Your task to perform on an android device: change the clock style Image 0: 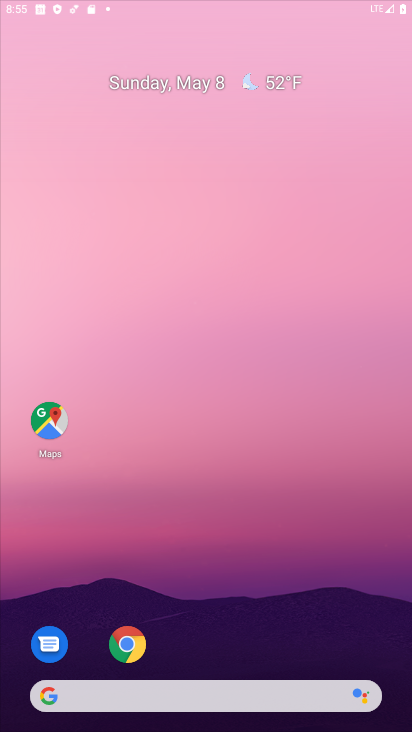
Step 0: drag from (337, 24) to (268, 58)
Your task to perform on an android device: change the clock style Image 1: 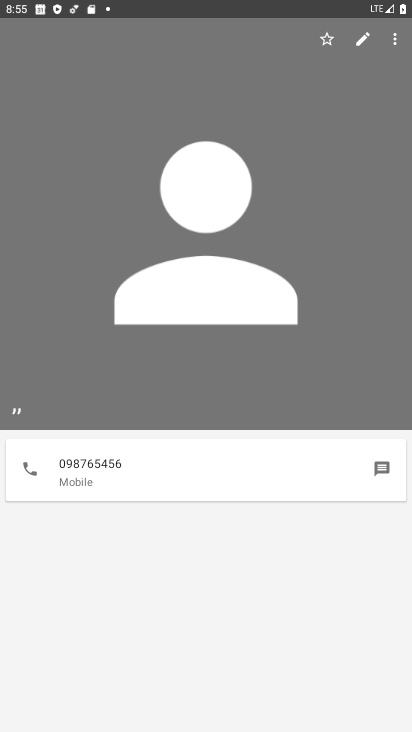
Step 1: press home button
Your task to perform on an android device: change the clock style Image 2: 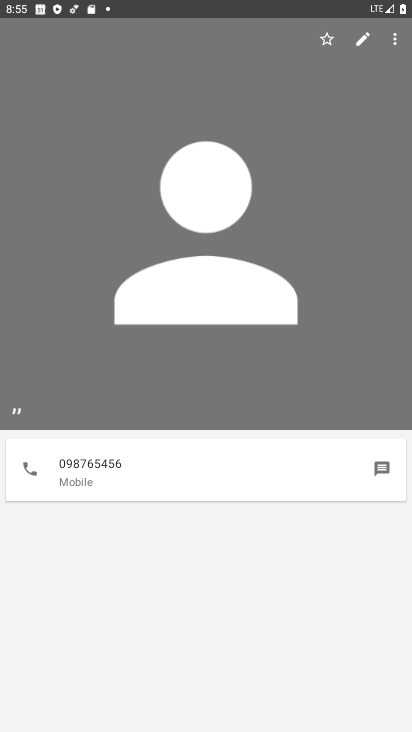
Step 2: press home button
Your task to perform on an android device: change the clock style Image 3: 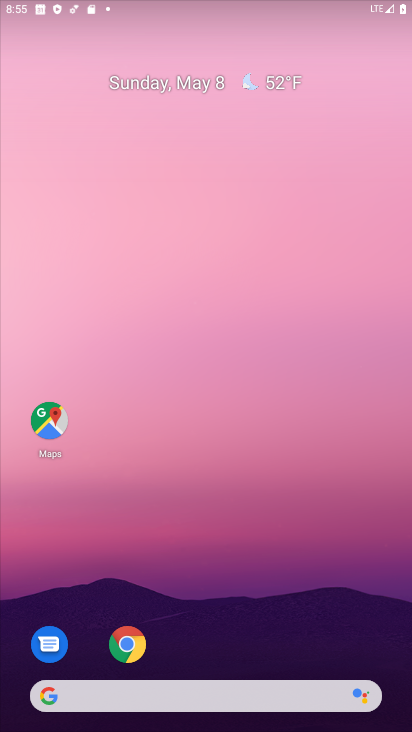
Step 3: drag from (182, 661) to (224, 349)
Your task to perform on an android device: change the clock style Image 4: 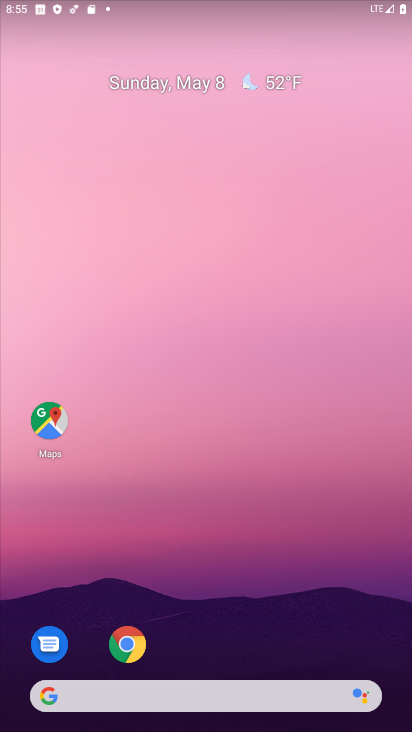
Step 4: drag from (215, 662) to (319, 148)
Your task to perform on an android device: change the clock style Image 5: 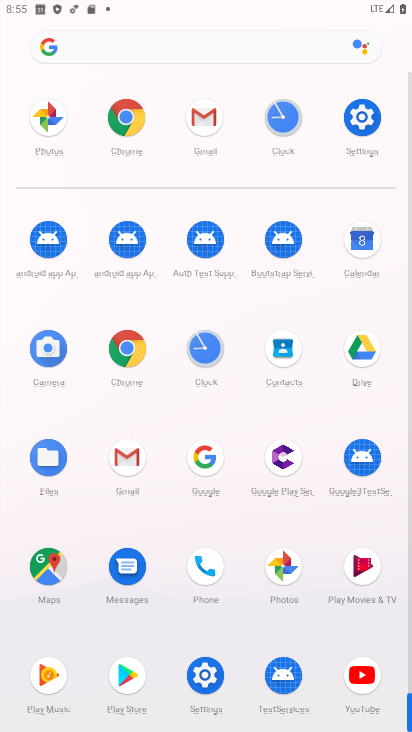
Step 5: click (202, 343)
Your task to perform on an android device: change the clock style Image 6: 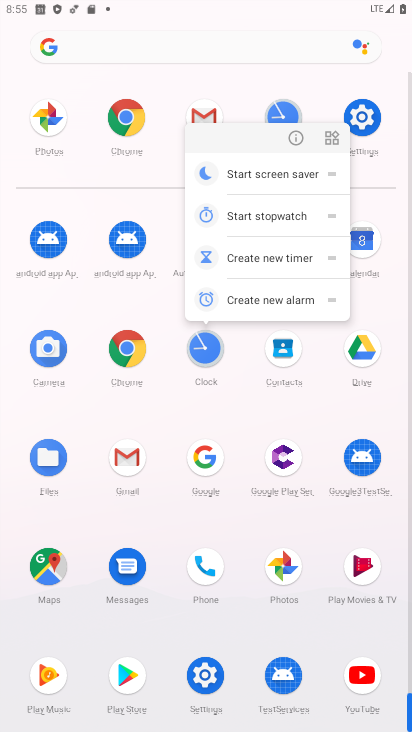
Step 6: click (292, 139)
Your task to perform on an android device: change the clock style Image 7: 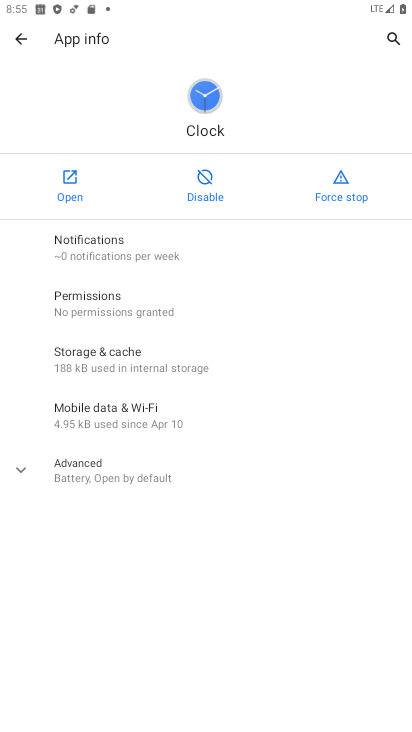
Step 7: click (84, 174)
Your task to perform on an android device: change the clock style Image 8: 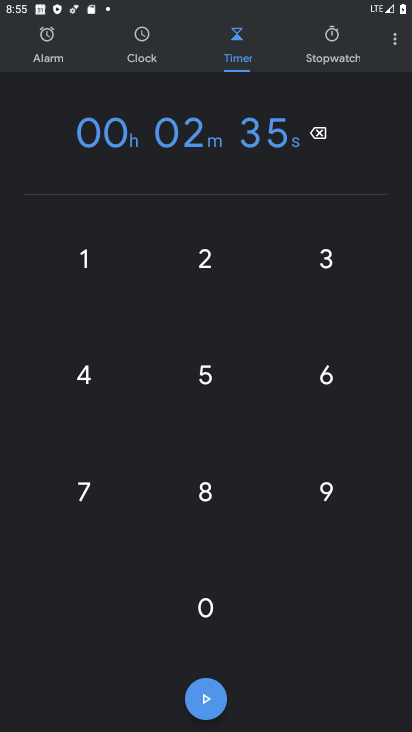
Step 8: click (128, 29)
Your task to perform on an android device: change the clock style Image 9: 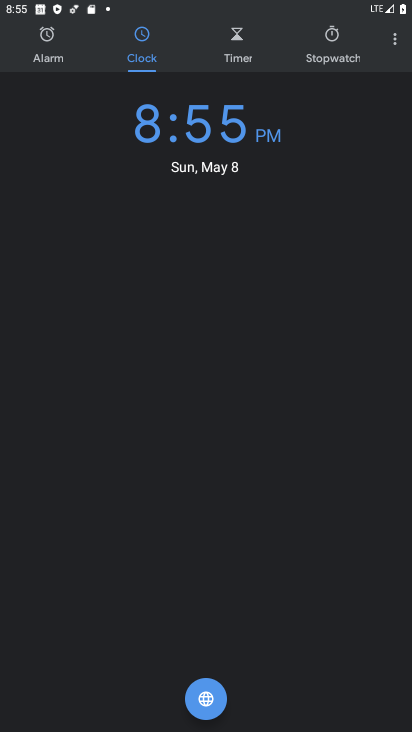
Step 9: click (401, 44)
Your task to perform on an android device: change the clock style Image 10: 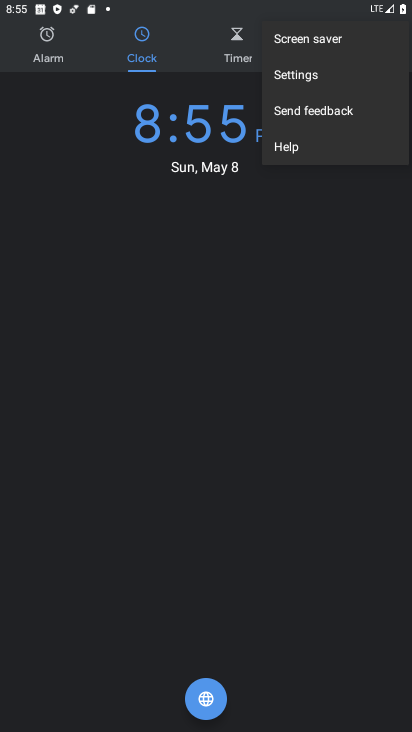
Step 10: drag from (316, 44) to (309, 82)
Your task to perform on an android device: change the clock style Image 11: 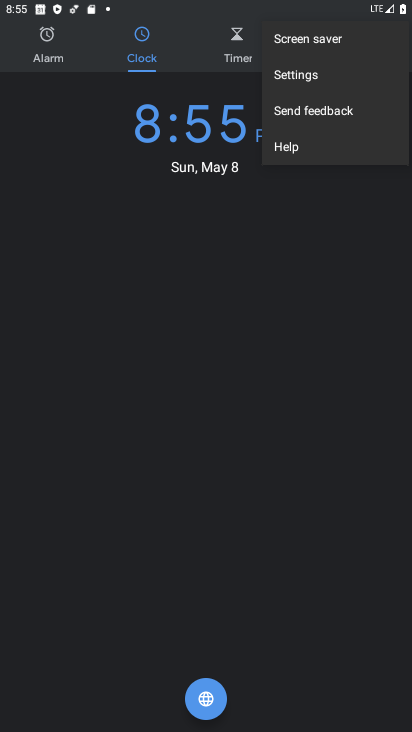
Step 11: click (337, 85)
Your task to perform on an android device: change the clock style Image 12: 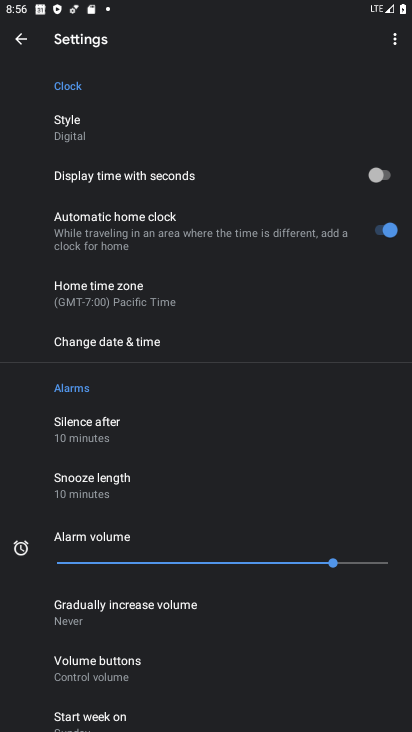
Step 12: click (117, 122)
Your task to perform on an android device: change the clock style Image 13: 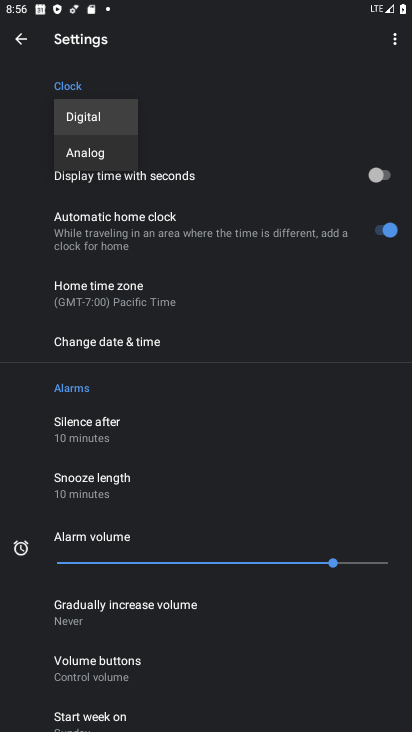
Step 13: click (109, 155)
Your task to perform on an android device: change the clock style Image 14: 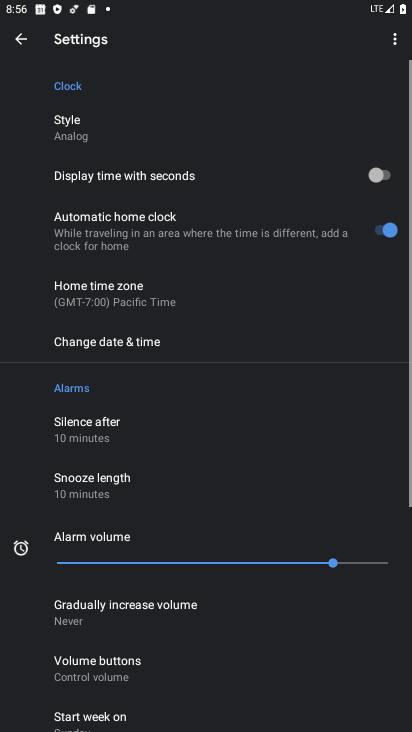
Step 14: task complete